Your task to perform on an android device: turn on bluetooth scan Image 0: 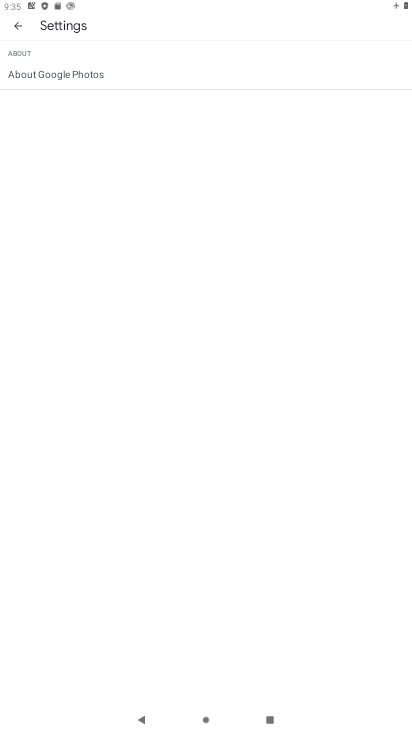
Step 0: press home button
Your task to perform on an android device: turn on bluetooth scan Image 1: 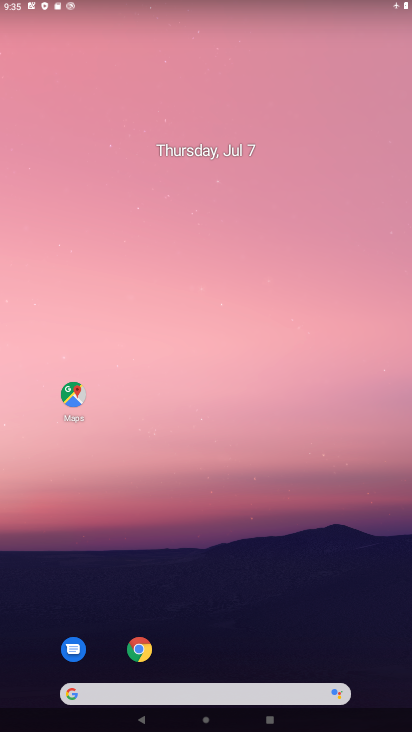
Step 1: drag from (248, 723) to (236, 131)
Your task to perform on an android device: turn on bluetooth scan Image 2: 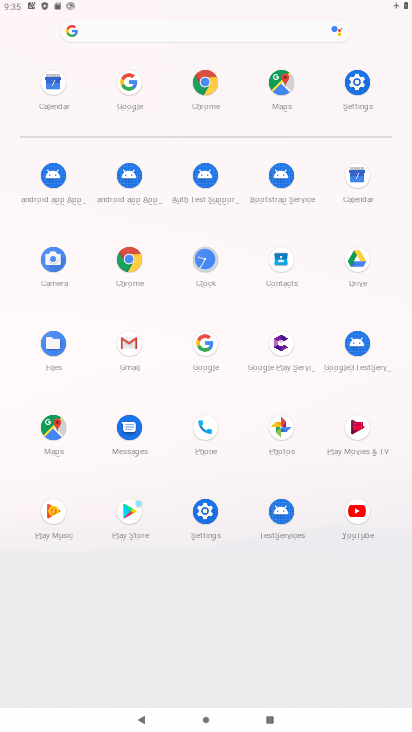
Step 2: click (351, 80)
Your task to perform on an android device: turn on bluetooth scan Image 3: 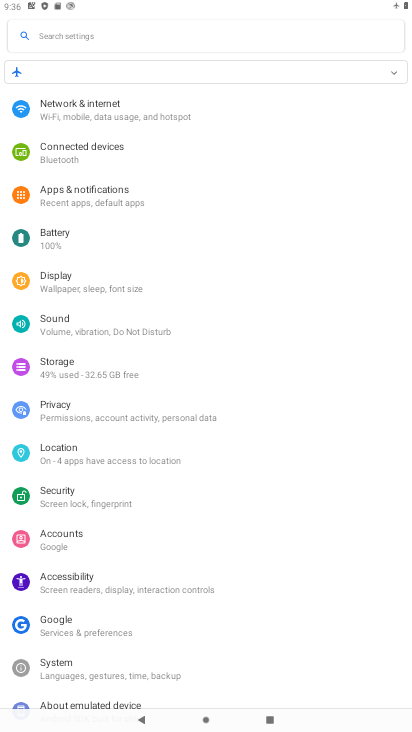
Step 3: click (52, 459)
Your task to perform on an android device: turn on bluetooth scan Image 4: 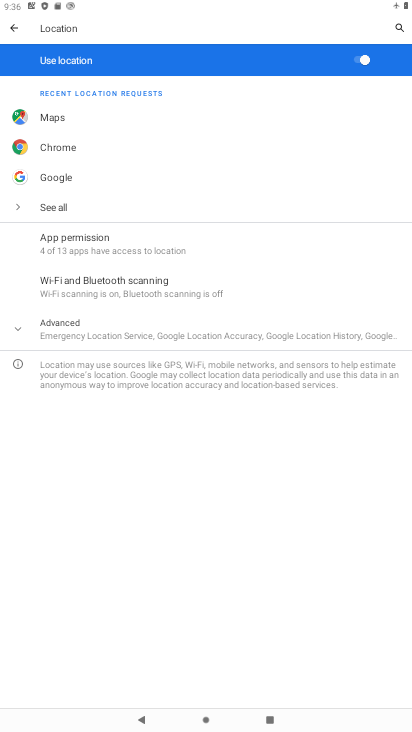
Step 4: click (99, 285)
Your task to perform on an android device: turn on bluetooth scan Image 5: 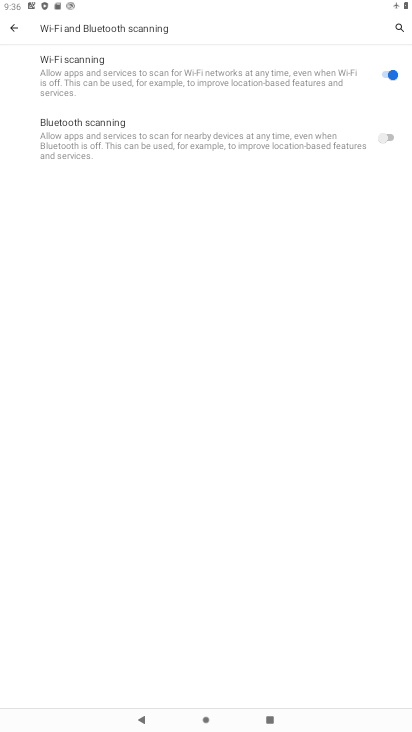
Step 5: click (388, 138)
Your task to perform on an android device: turn on bluetooth scan Image 6: 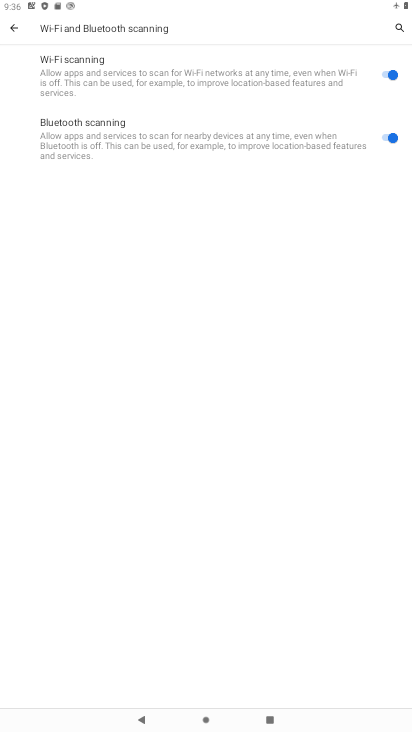
Step 6: task complete